Your task to perform on an android device: Open Google Maps Image 0: 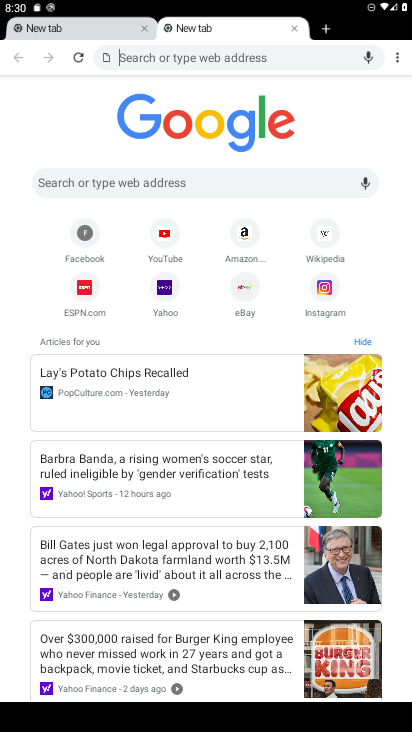
Step 0: press home button
Your task to perform on an android device: Open Google Maps Image 1: 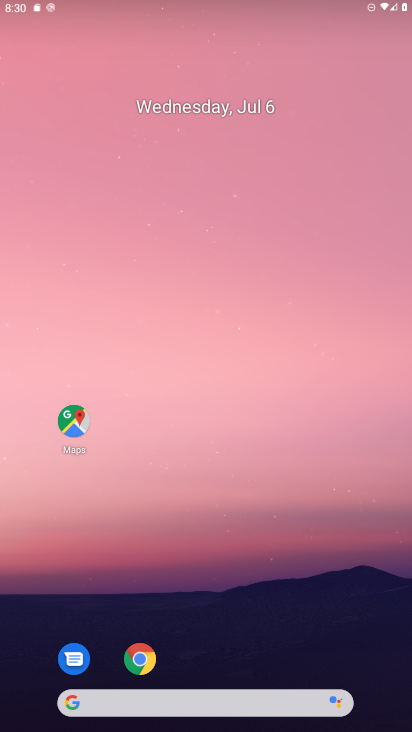
Step 1: drag from (197, 654) to (281, 0)
Your task to perform on an android device: Open Google Maps Image 2: 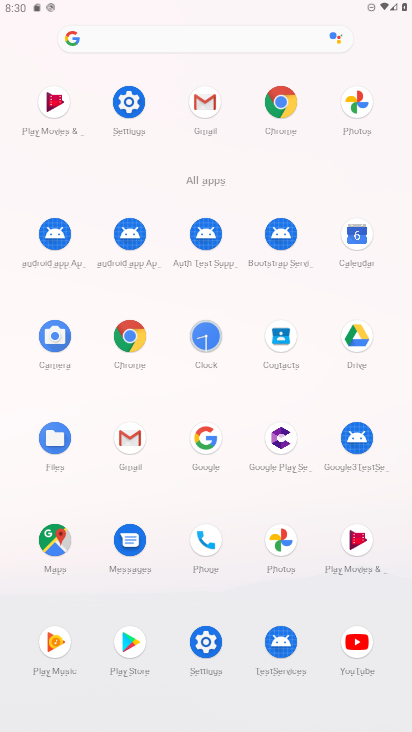
Step 2: drag from (162, 517) to (207, 263)
Your task to perform on an android device: Open Google Maps Image 3: 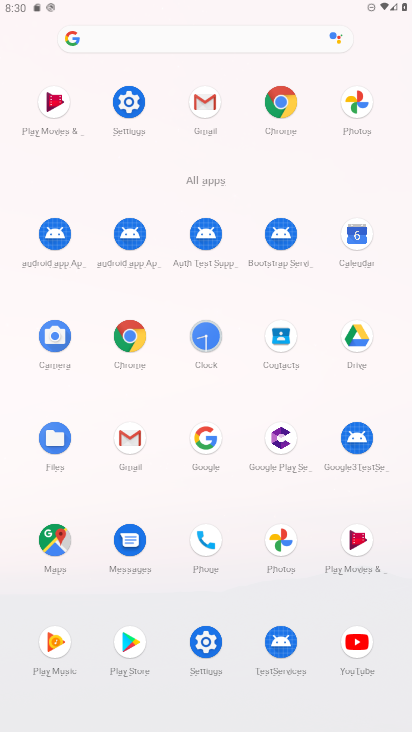
Step 3: click (59, 551)
Your task to perform on an android device: Open Google Maps Image 4: 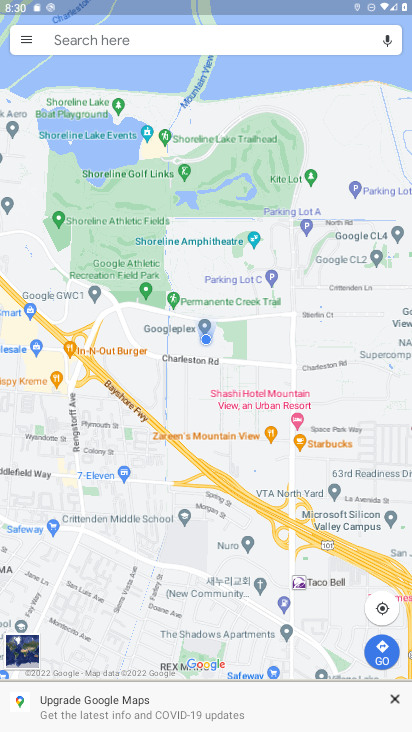
Step 4: task complete